Your task to perform on an android device: turn on translation in the chrome app Image 0: 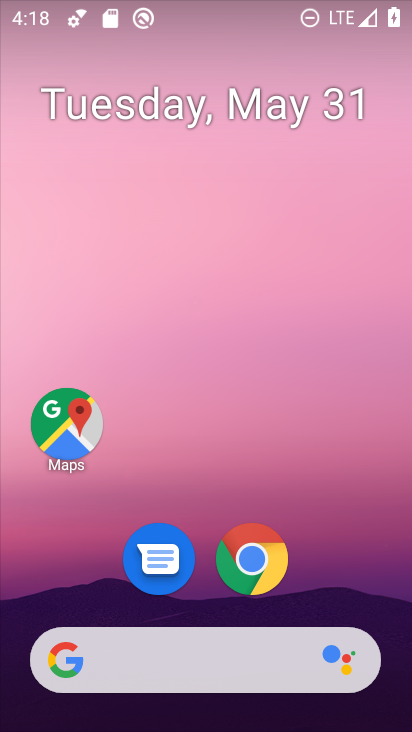
Step 0: click (249, 572)
Your task to perform on an android device: turn on translation in the chrome app Image 1: 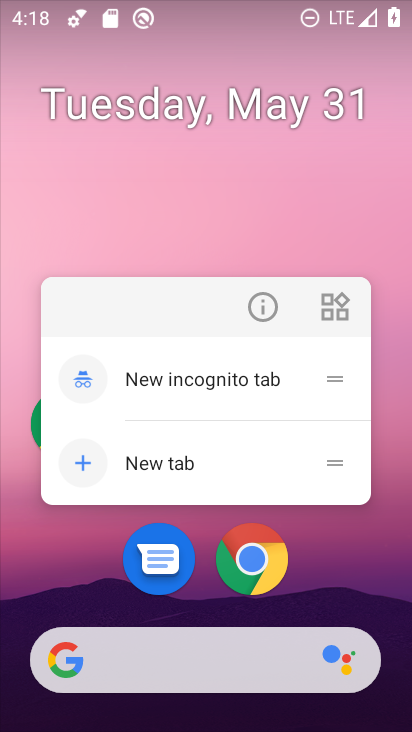
Step 1: click (249, 572)
Your task to perform on an android device: turn on translation in the chrome app Image 2: 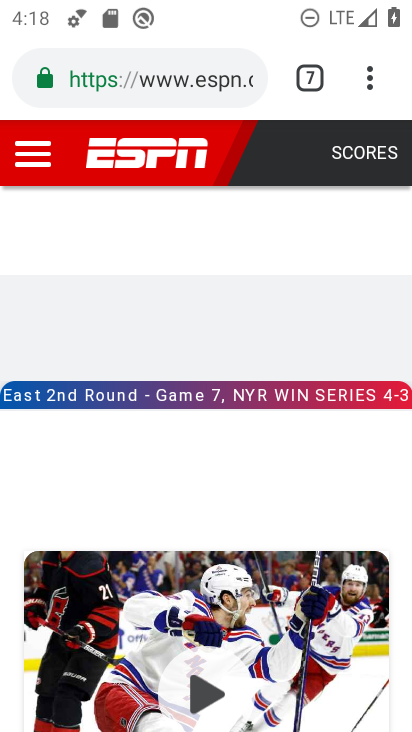
Step 2: click (369, 87)
Your task to perform on an android device: turn on translation in the chrome app Image 3: 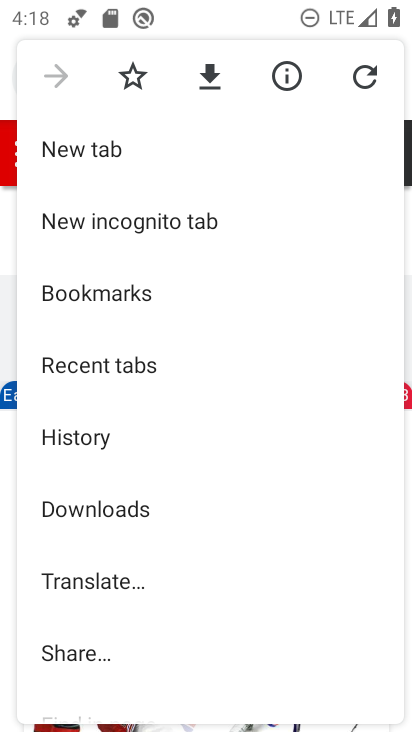
Step 3: drag from (120, 689) to (121, 272)
Your task to perform on an android device: turn on translation in the chrome app Image 4: 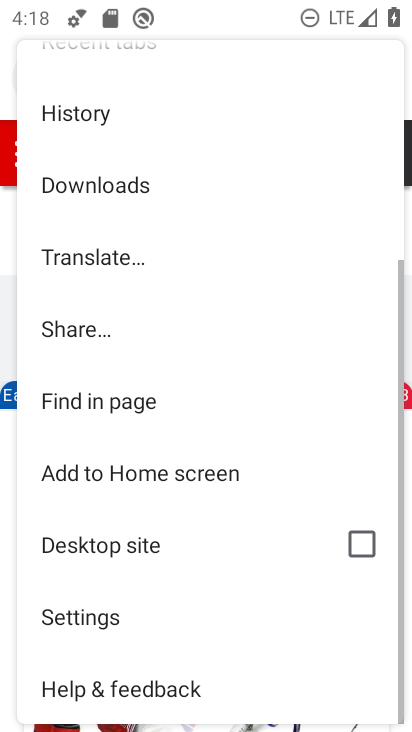
Step 4: click (101, 616)
Your task to perform on an android device: turn on translation in the chrome app Image 5: 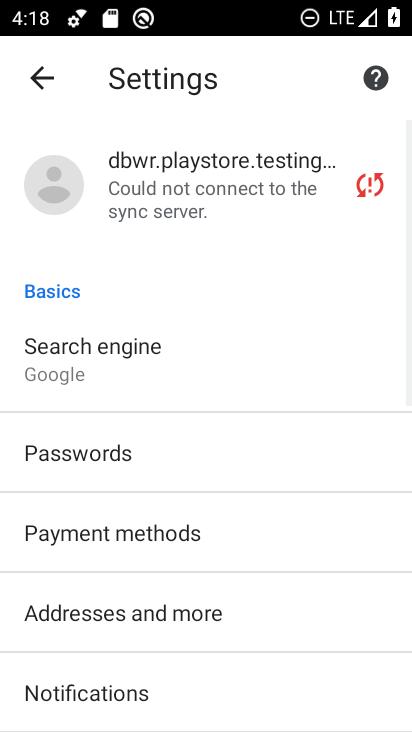
Step 5: drag from (185, 698) to (190, 292)
Your task to perform on an android device: turn on translation in the chrome app Image 6: 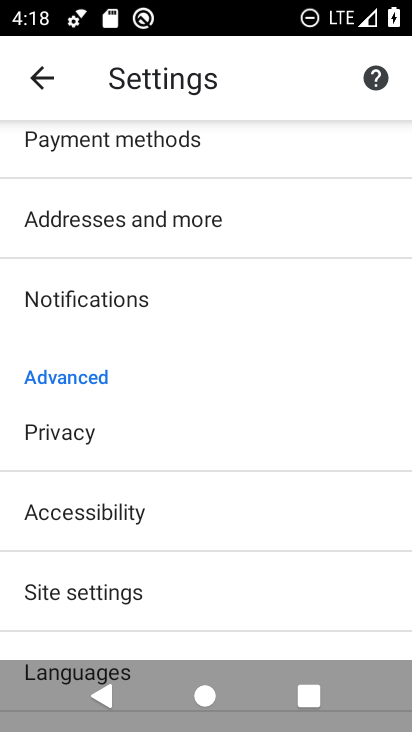
Step 6: drag from (112, 614) to (121, 302)
Your task to perform on an android device: turn on translation in the chrome app Image 7: 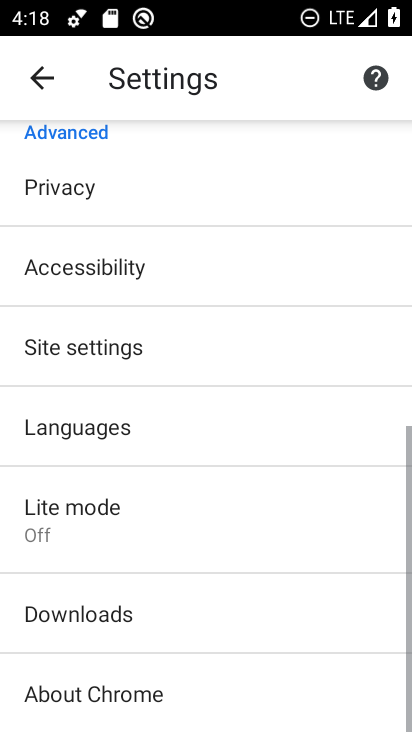
Step 7: click (85, 429)
Your task to perform on an android device: turn on translation in the chrome app Image 8: 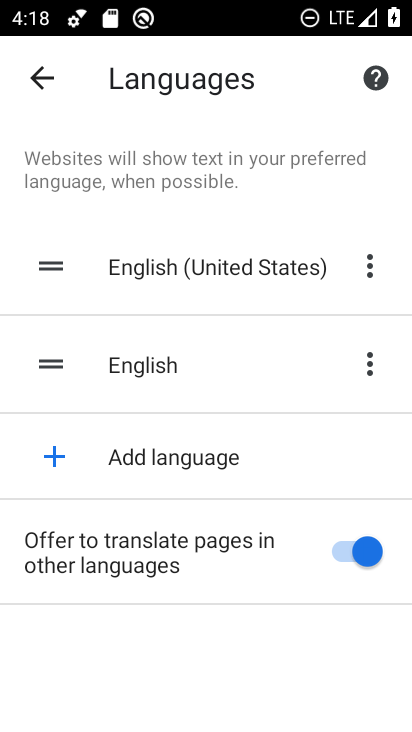
Step 8: task complete